Your task to perform on an android device: Go to Android settings Image 0: 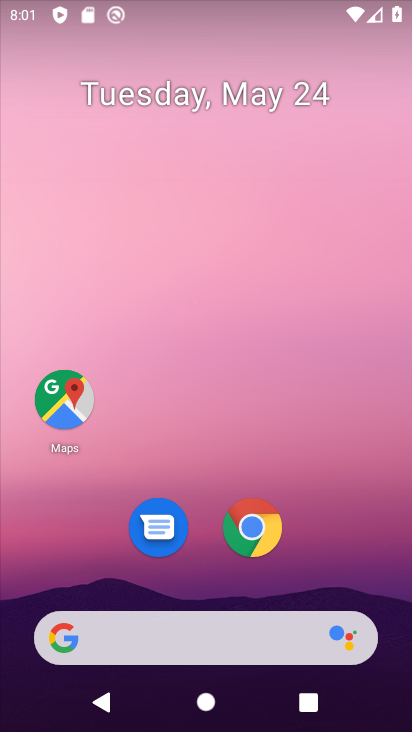
Step 0: drag from (340, 556) to (345, 173)
Your task to perform on an android device: Go to Android settings Image 1: 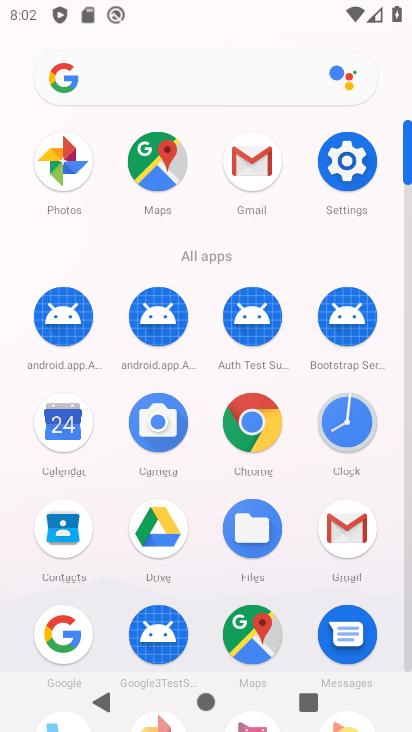
Step 1: click (348, 172)
Your task to perform on an android device: Go to Android settings Image 2: 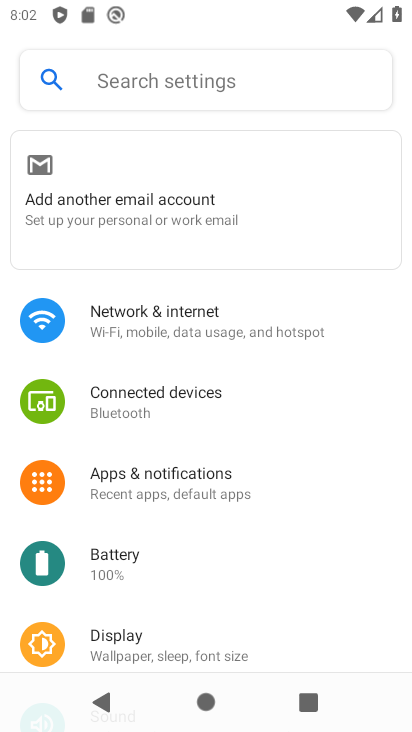
Step 2: task complete